Your task to perform on an android device: Open Youtube and go to the subscriptions tab Image 0: 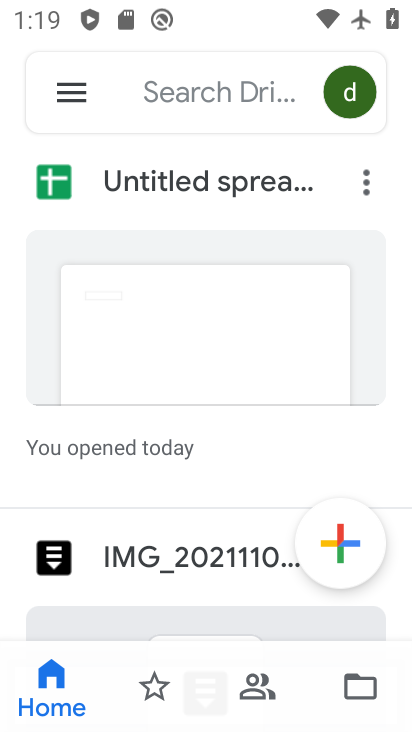
Step 0: press home button
Your task to perform on an android device: Open Youtube and go to the subscriptions tab Image 1: 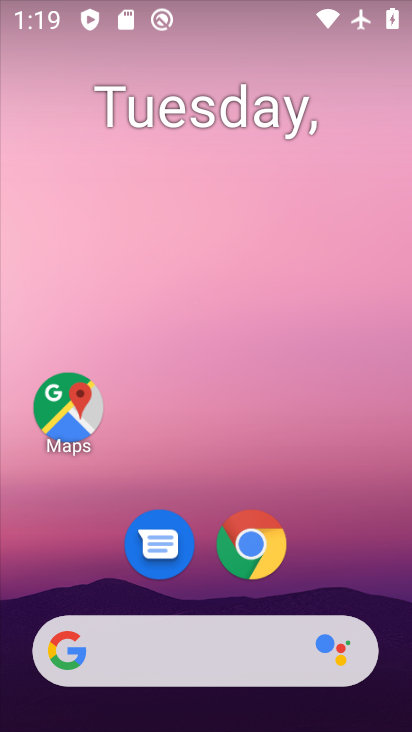
Step 1: drag from (396, 640) to (310, 154)
Your task to perform on an android device: Open Youtube and go to the subscriptions tab Image 2: 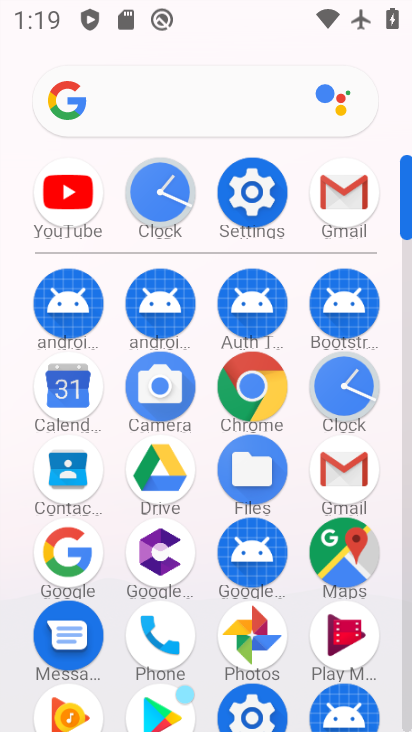
Step 2: click (407, 699)
Your task to perform on an android device: Open Youtube and go to the subscriptions tab Image 3: 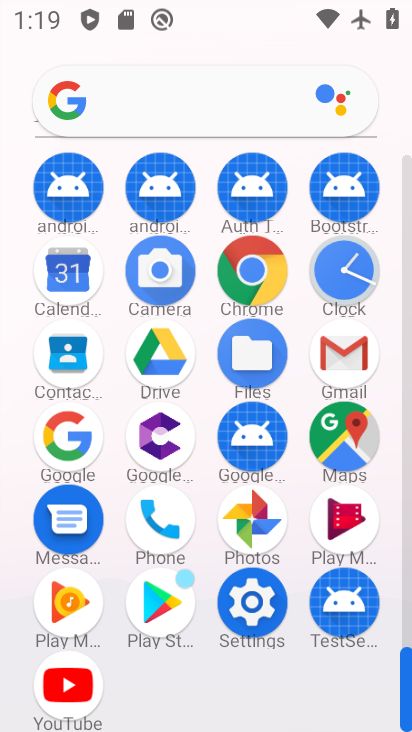
Step 3: click (64, 682)
Your task to perform on an android device: Open Youtube and go to the subscriptions tab Image 4: 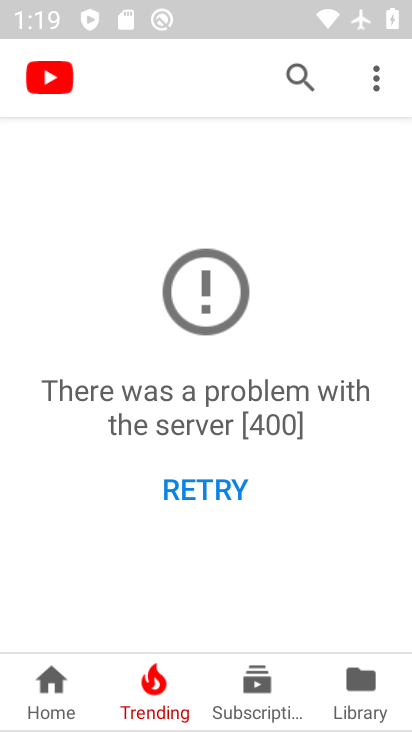
Step 4: click (256, 694)
Your task to perform on an android device: Open Youtube and go to the subscriptions tab Image 5: 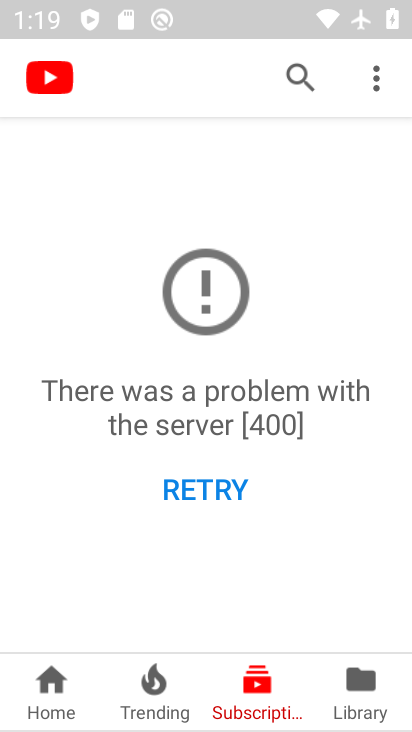
Step 5: task complete